Your task to perform on an android device: toggle priority inbox in the gmail app Image 0: 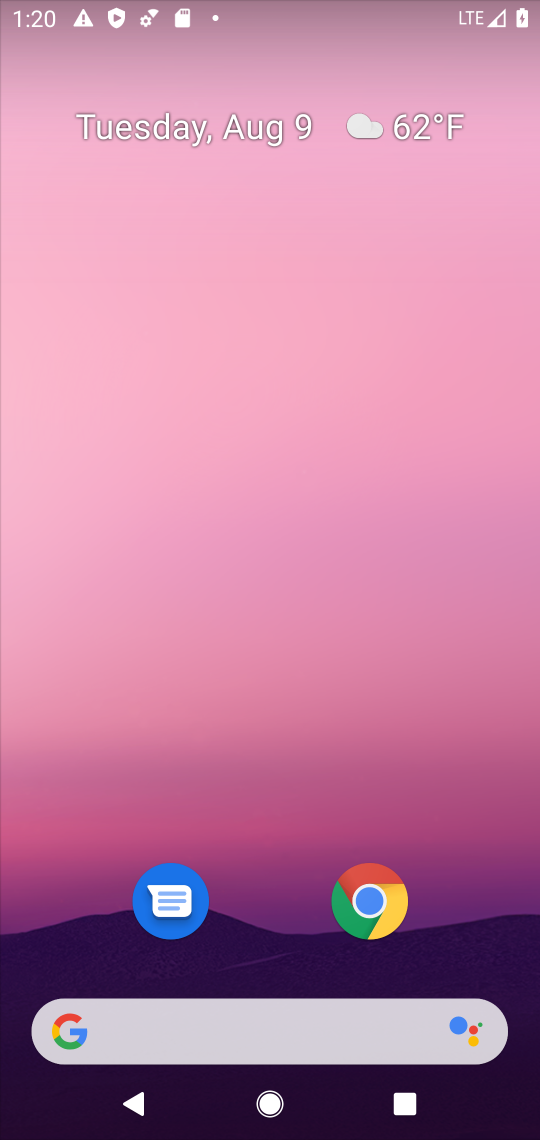
Step 0: drag from (527, 1021) to (488, 141)
Your task to perform on an android device: toggle priority inbox in the gmail app Image 1: 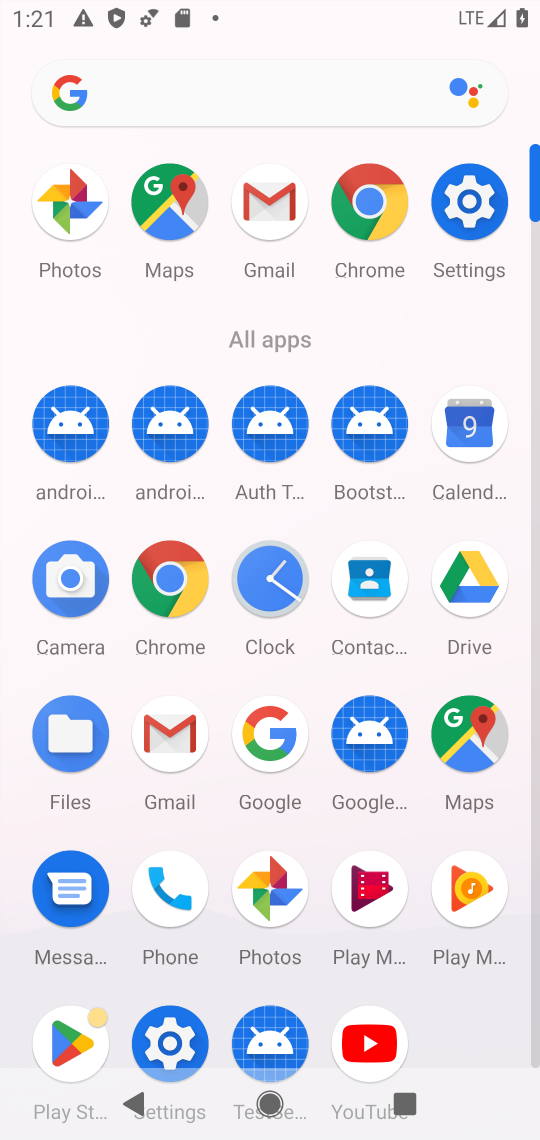
Step 1: click (167, 736)
Your task to perform on an android device: toggle priority inbox in the gmail app Image 2: 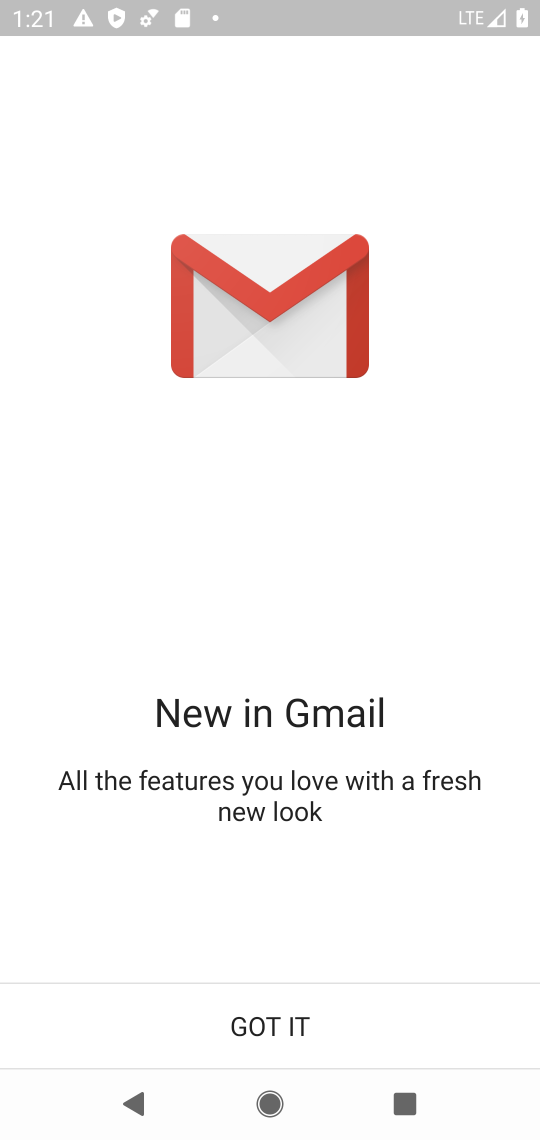
Step 2: click (267, 1012)
Your task to perform on an android device: toggle priority inbox in the gmail app Image 3: 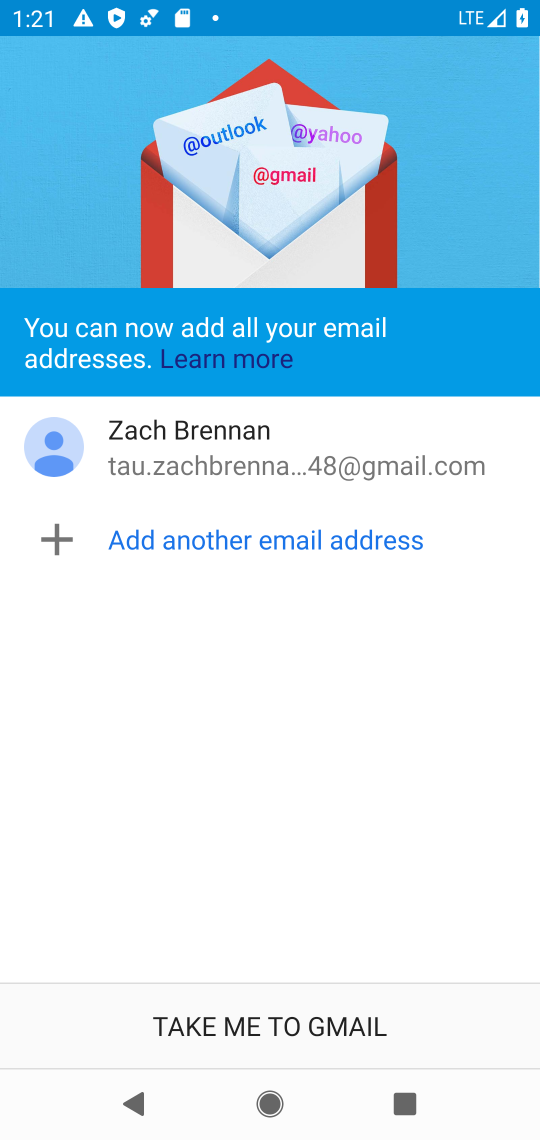
Step 3: click (267, 1012)
Your task to perform on an android device: toggle priority inbox in the gmail app Image 4: 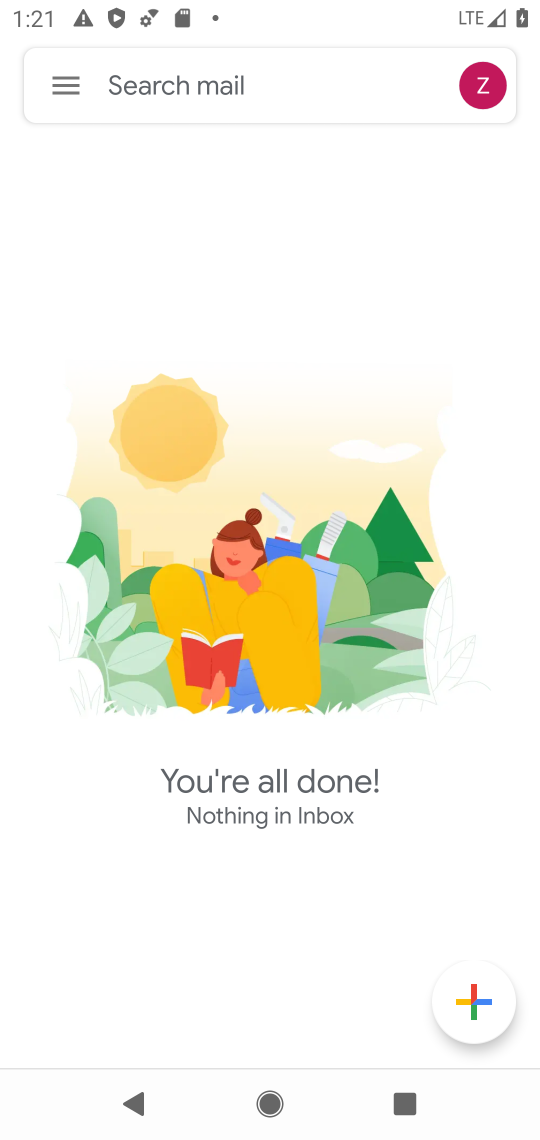
Step 4: click (64, 85)
Your task to perform on an android device: toggle priority inbox in the gmail app Image 5: 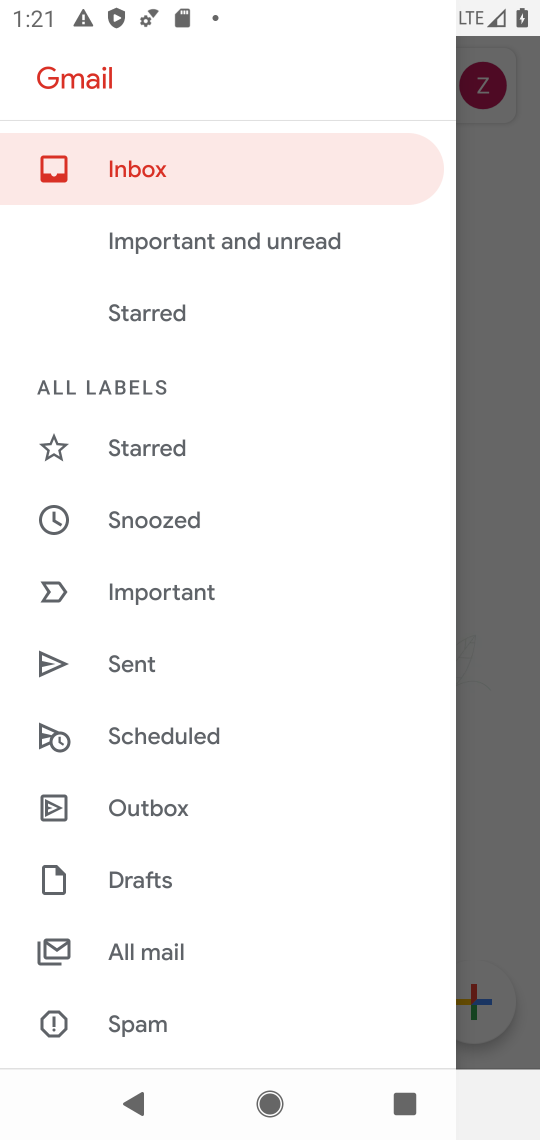
Step 5: drag from (263, 991) to (258, 588)
Your task to perform on an android device: toggle priority inbox in the gmail app Image 6: 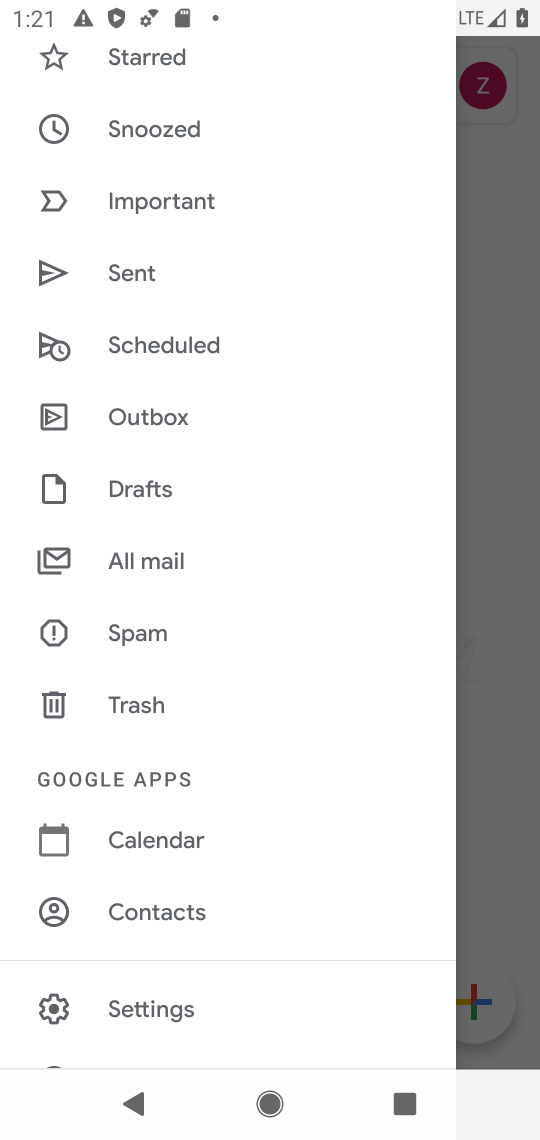
Step 6: click (138, 1004)
Your task to perform on an android device: toggle priority inbox in the gmail app Image 7: 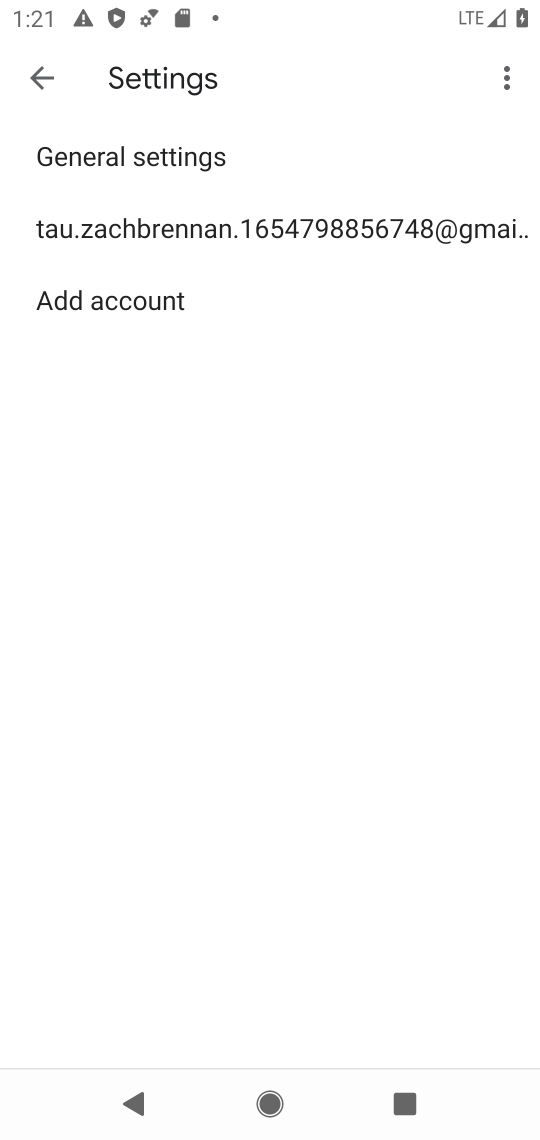
Step 7: click (226, 225)
Your task to perform on an android device: toggle priority inbox in the gmail app Image 8: 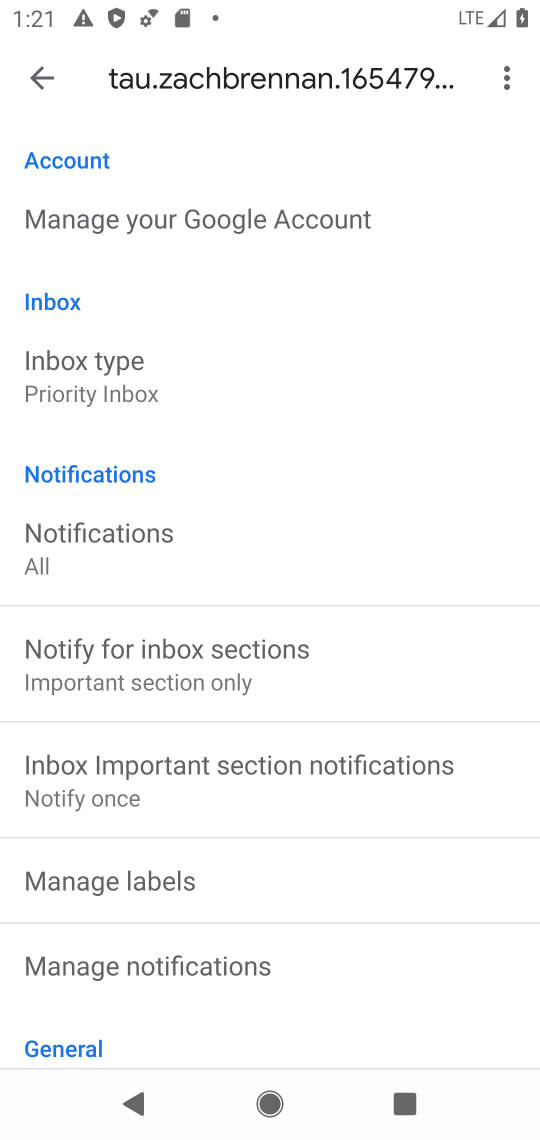
Step 8: click (98, 385)
Your task to perform on an android device: toggle priority inbox in the gmail app Image 9: 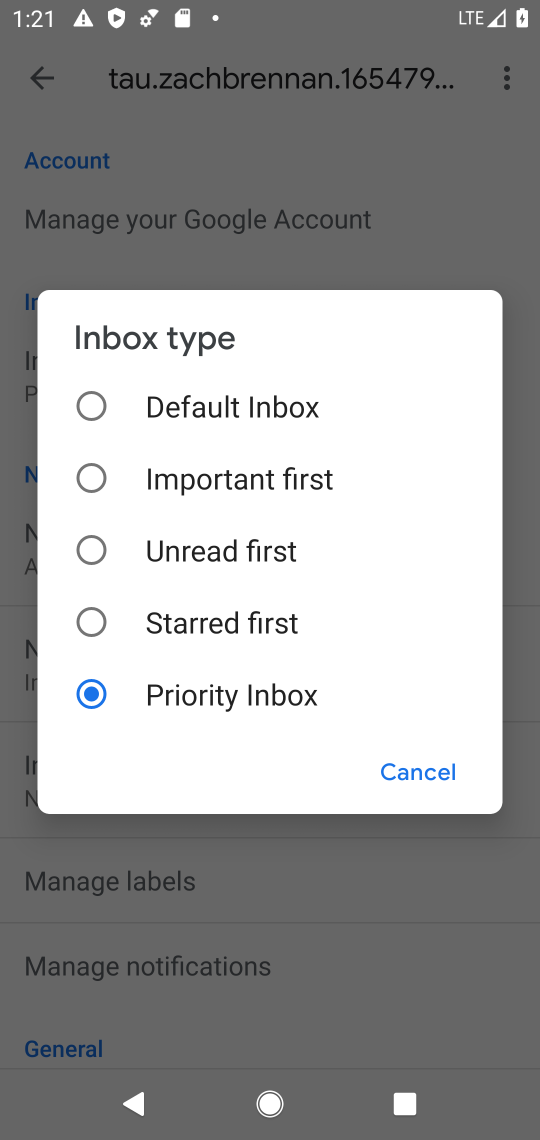
Step 9: click (83, 402)
Your task to perform on an android device: toggle priority inbox in the gmail app Image 10: 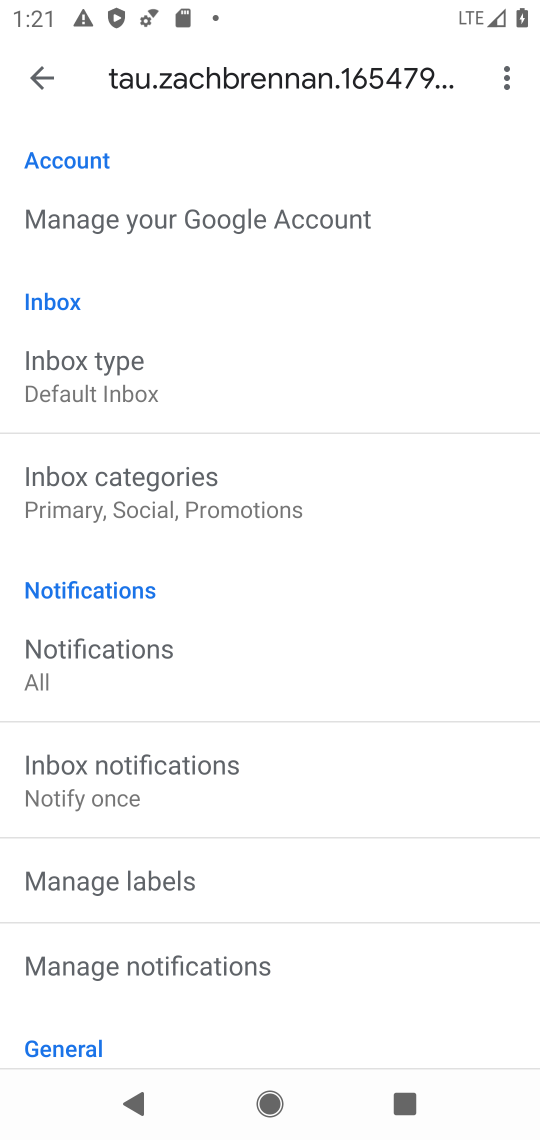
Step 10: task complete